Your task to perform on an android device: clear all cookies in the chrome app Image 0: 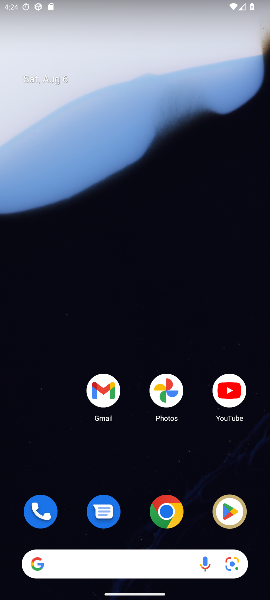
Step 0: click (159, 512)
Your task to perform on an android device: clear all cookies in the chrome app Image 1: 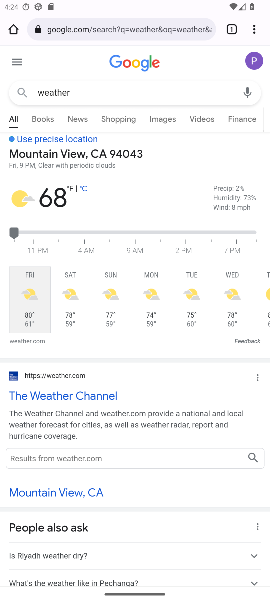
Step 1: click (256, 28)
Your task to perform on an android device: clear all cookies in the chrome app Image 2: 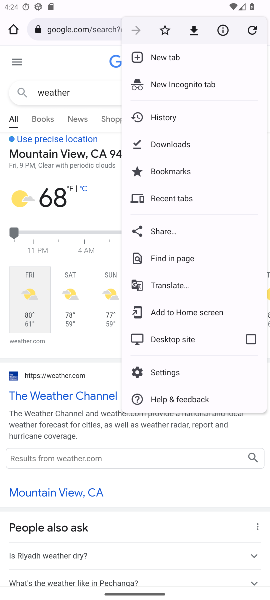
Step 2: click (169, 114)
Your task to perform on an android device: clear all cookies in the chrome app Image 3: 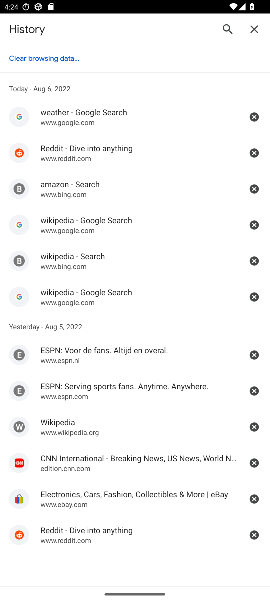
Step 3: click (58, 63)
Your task to perform on an android device: clear all cookies in the chrome app Image 4: 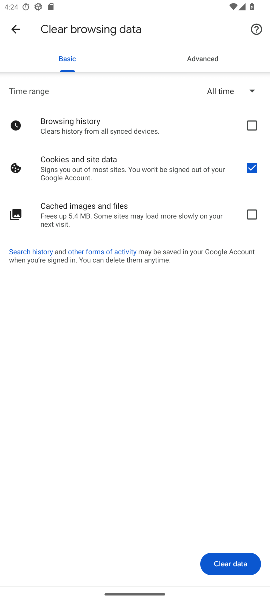
Step 4: click (218, 564)
Your task to perform on an android device: clear all cookies in the chrome app Image 5: 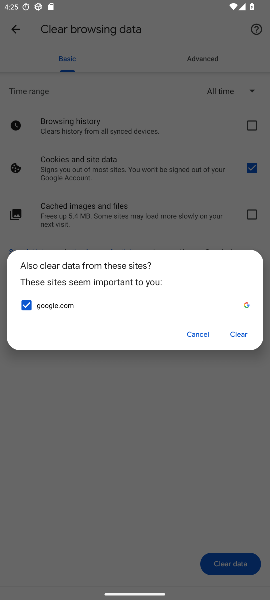
Step 5: click (239, 337)
Your task to perform on an android device: clear all cookies in the chrome app Image 6: 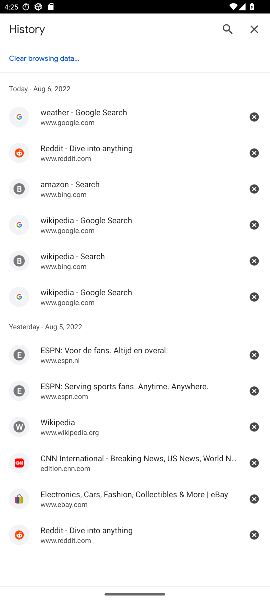
Step 6: task complete